Your task to perform on an android device: What's the weather? Image 0: 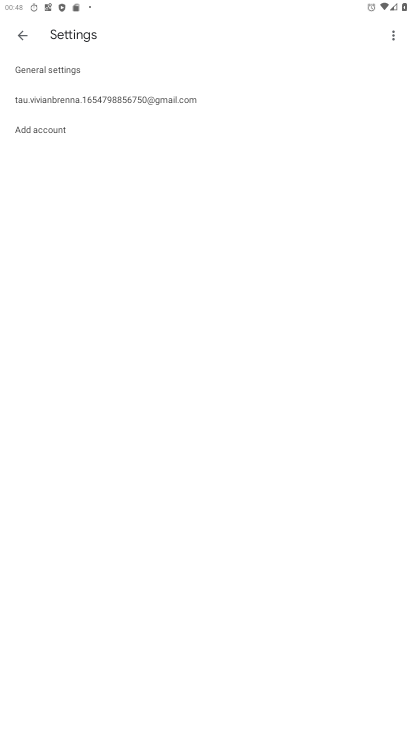
Step 0: press home button
Your task to perform on an android device: What's the weather? Image 1: 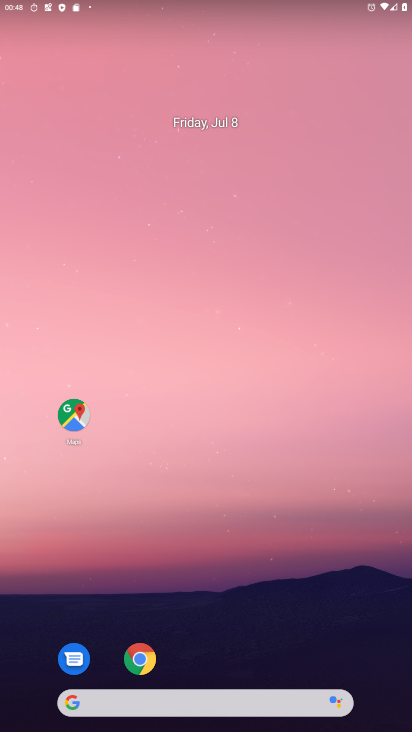
Step 1: click (211, 702)
Your task to perform on an android device: What's the weather? Image 2: 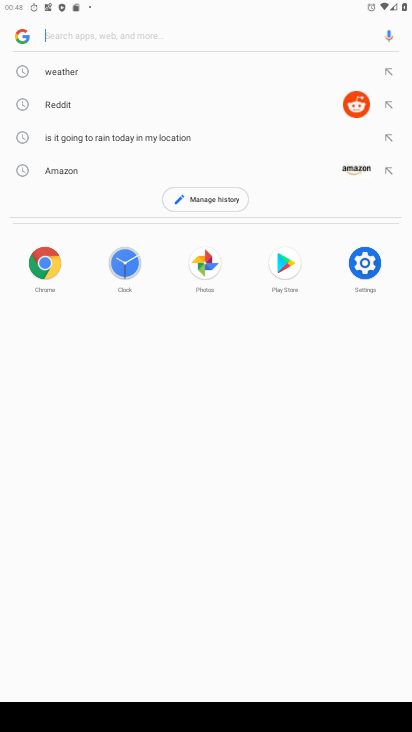
Step 2: click (119, 71)
Your task to perform on an android device: What's the weather? Image 3: 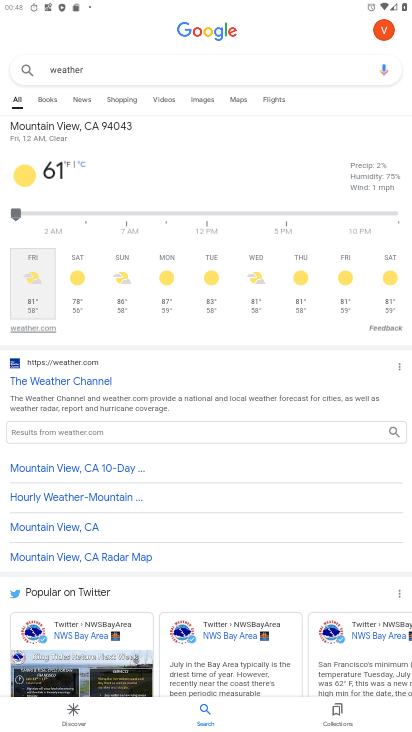
Step 3: task complete